Your task to perform on an android device: Go to Amazon Image 0: 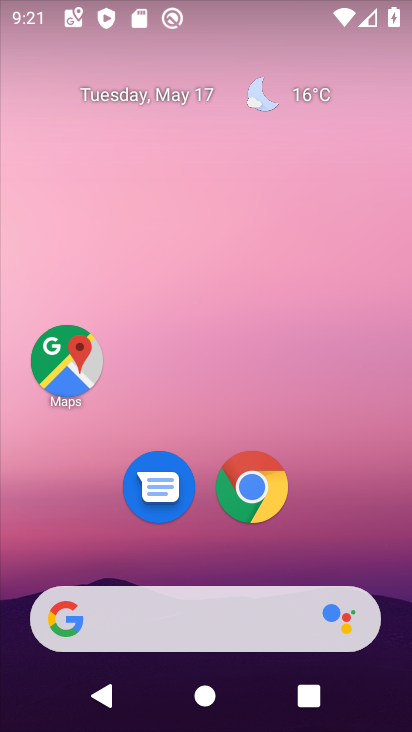
Step 0: click (262, 490)
Your task to perform on an android device: Go to Amazon Image 1: 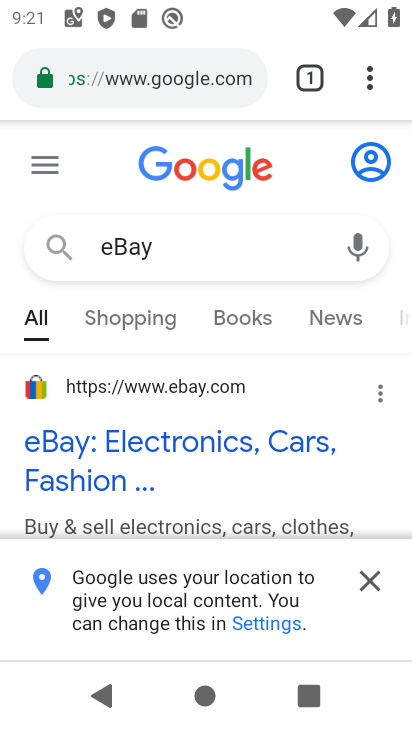
Step 1: click (374, 578)
Your task to perform on an android device: Go to Amazon Image 2: 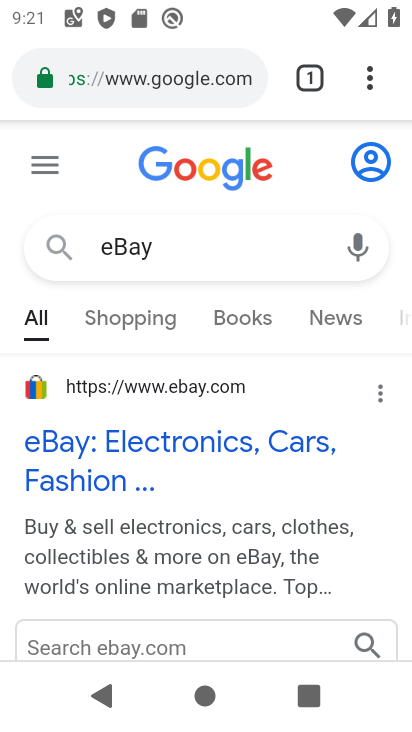
Step 2: click (220, 80)
Your task to perform on an android device: Go to Amazon Image 3: 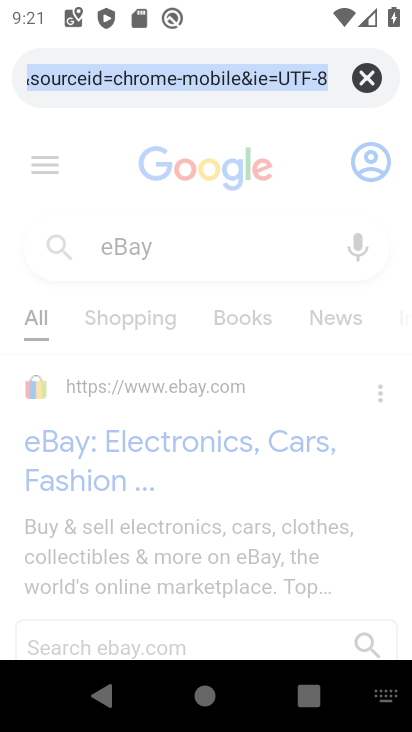
Step 3: type "Amazon"
Your task to perform on an android device: Go to Amazon Image 4: 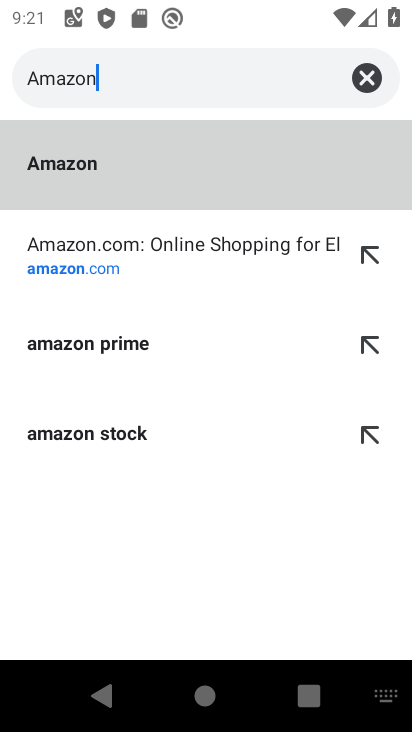
Step 4: click (127, 182)
Your task to perform on an android device: Go to Amazon Image 5: 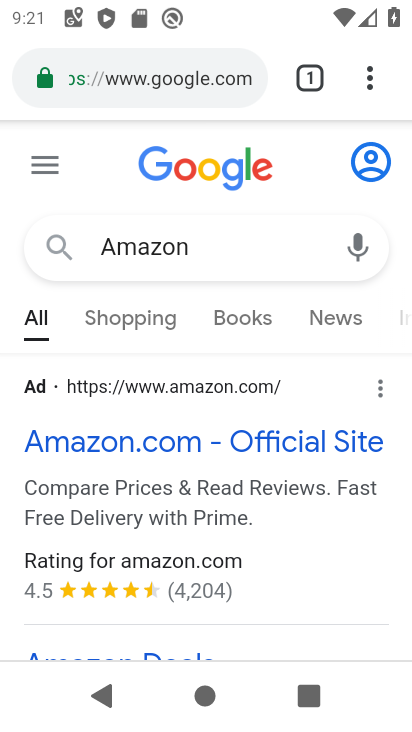
Step 5: task complete